Your task to perform on an android device: turn on javascript in the chrome app Image 0: 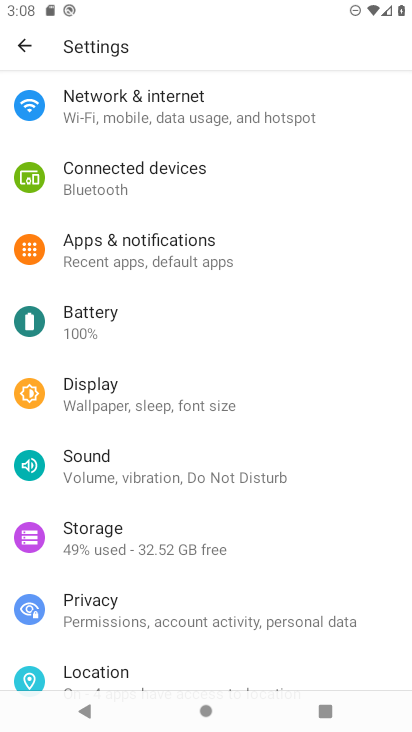
Step 0: press home button
Your task to perform on an android device: turn on javascript in the chrome app Image 1: 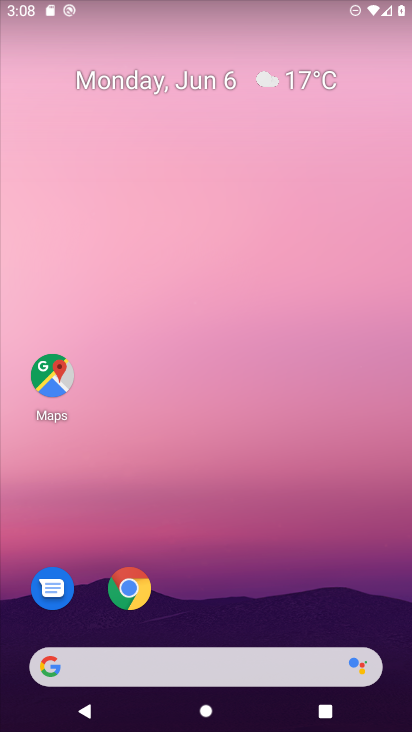
Step 1: click (135, 593)
Your task to perform on an android device: turn on javascript in the chrome app Image 2: 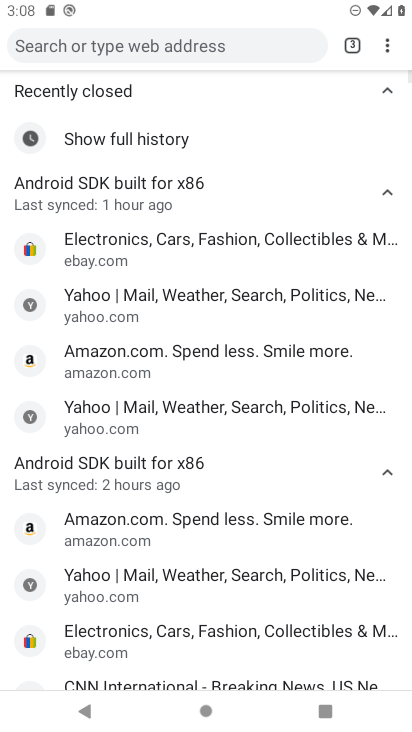
Step 2: click (395, 42)
Your task to perform on an android device: turn on javascript in the chrome app Image 3: 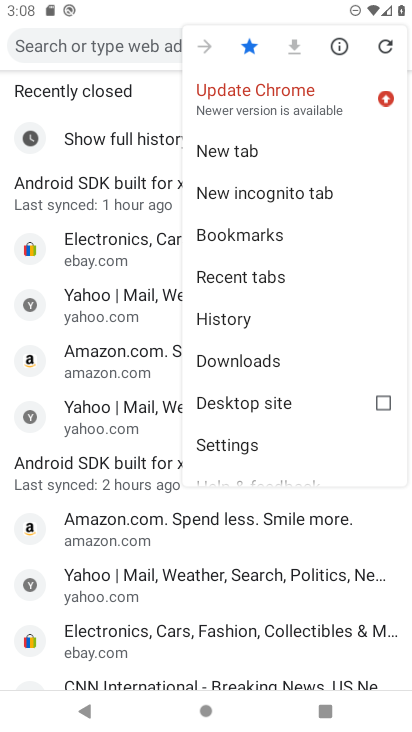
Step 3: click (293, 448)
Your task to perform on an android device: turn on javascript in the chrome app Image 4: 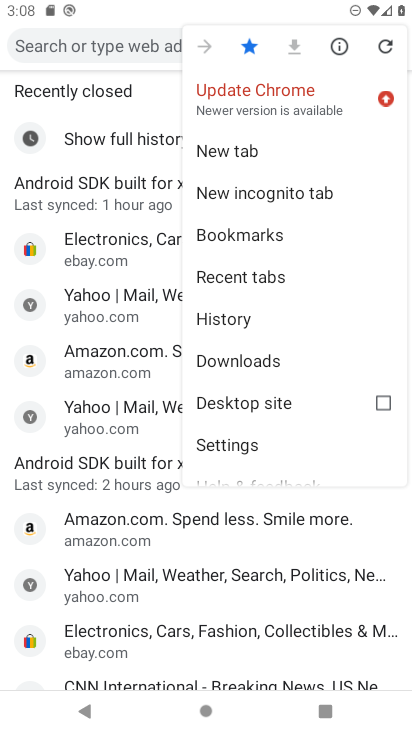
Step 4: click (293, 448)
Your task to perform on an android device: turn on javascript in the chrome app Image 5: 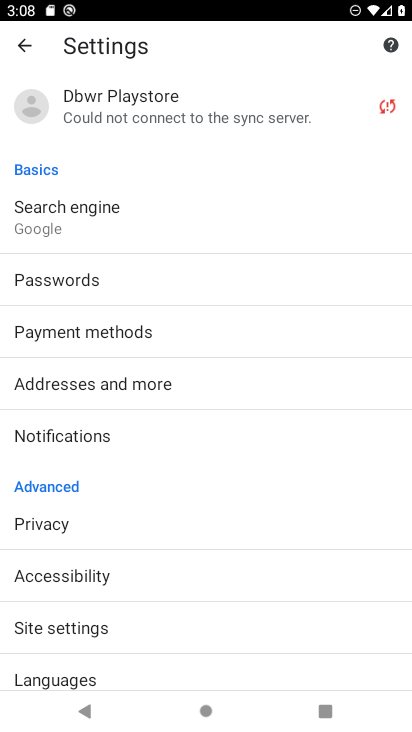
Step 5: click (242, 612)
Your task to perform on an android device: turn on javascript in the chrome app Image 6: 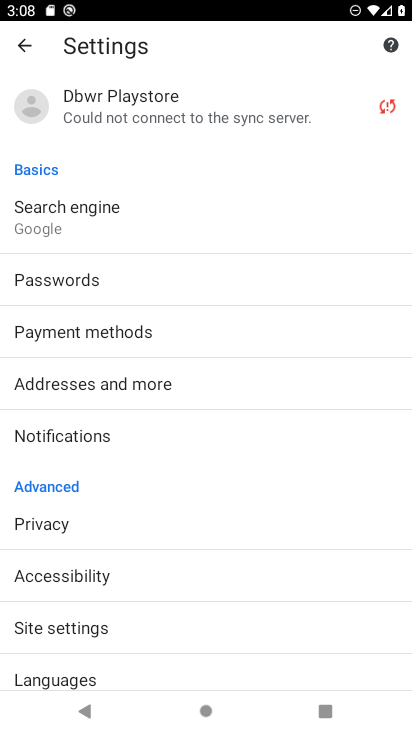
Step 6: click (242, 612)
Your task to perform on an android device: turn on javascript in the chrome app Image 7: 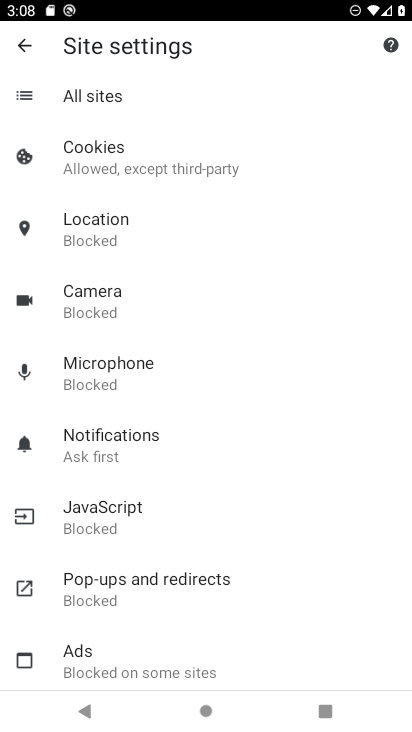
Step 7: drag from (247, 304) to (267, 148)
Your task to perform on an android device: turn on javascript in the chrome app Image 8: 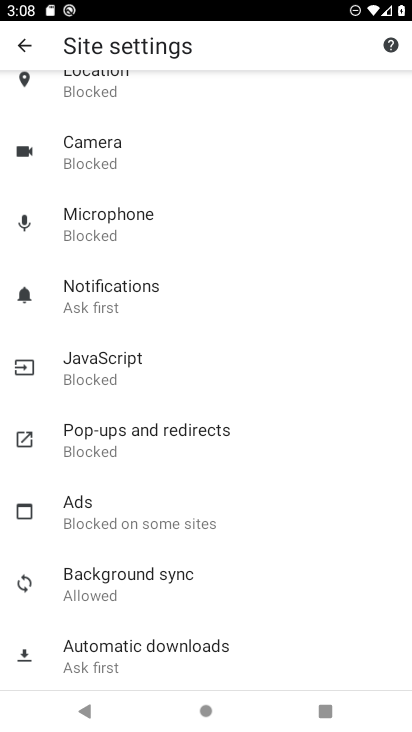
Step 8: click (180, 366)
Your task to perform on an android device: turn on javascript in the chrome app Image 9: 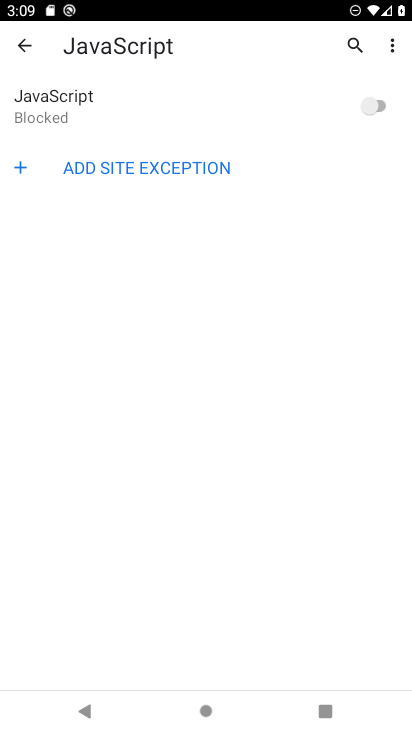
Step 9: click (381, 99)
Your task to perform on an android device: turn on javascript in the chrome app Image 10: 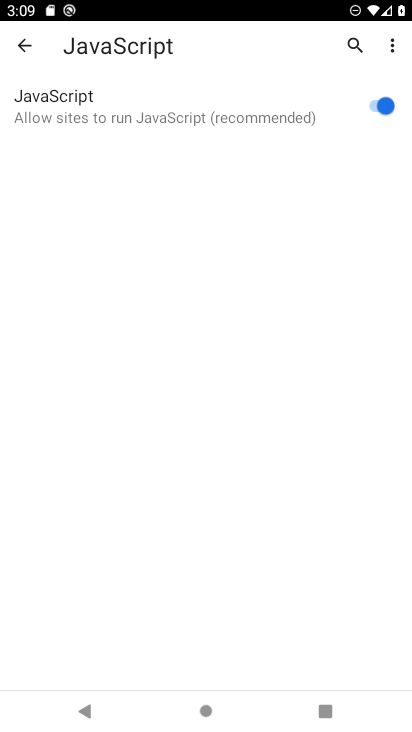
Step 10: task complete